Your task to perform on an android device: open app "WhatsApp Messenger" Image 0: 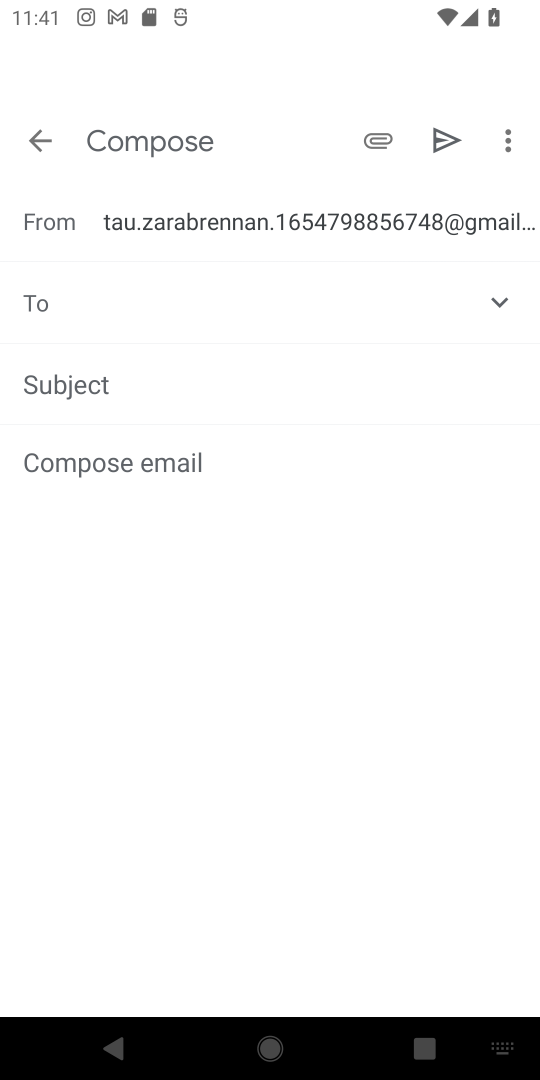
Step 0: press home button
Your task to perform on an android device: open app "WhatsApp Messenger" Image 1: 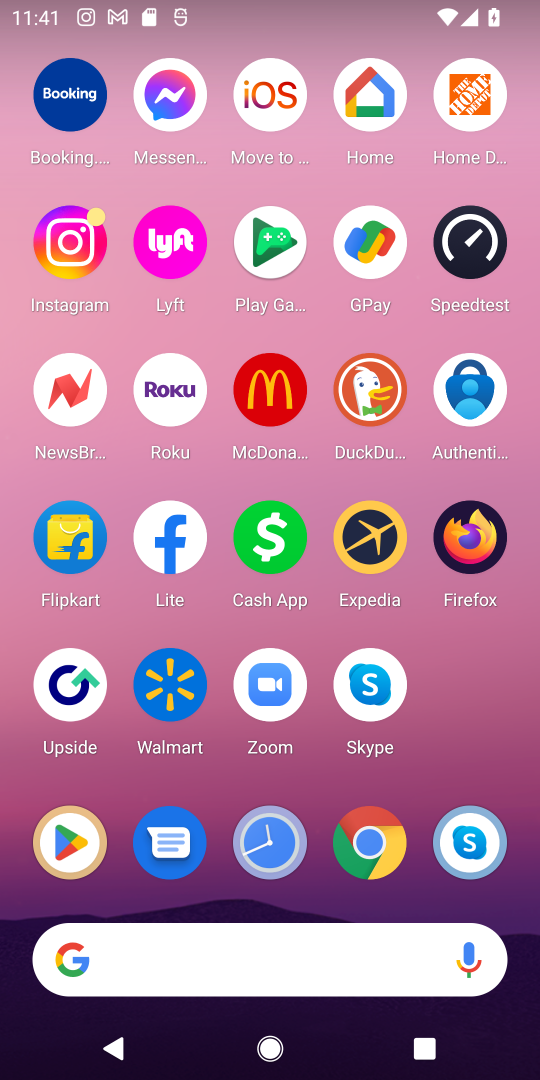
Step 1: click (68, 840)
Your task to perform on an android device: open app "WhatsApp Messenger" Image 2: 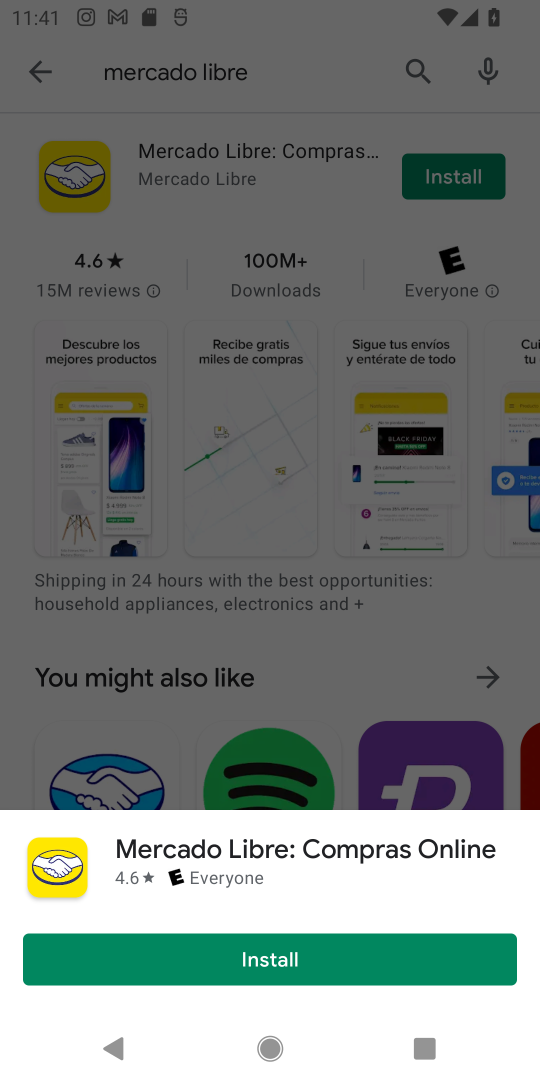
Step 2: click (288, 689)
Your task to perform on an android device: open app "WhatsApp Messenger" Image 3: 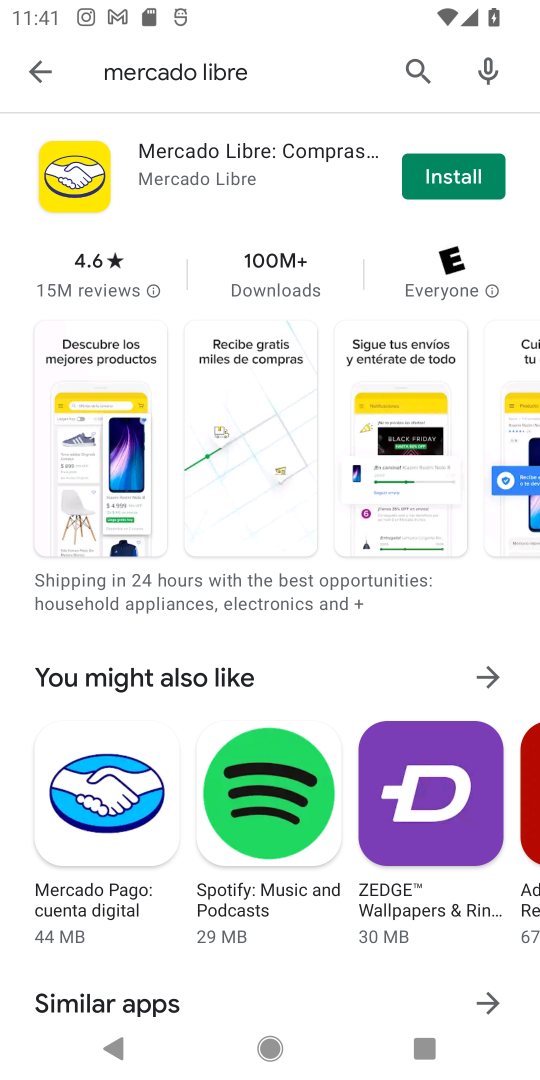
Step 3: click (403, 70)
Your task to perform on an android device: open app "WhatsApp Messenger" Image 4: 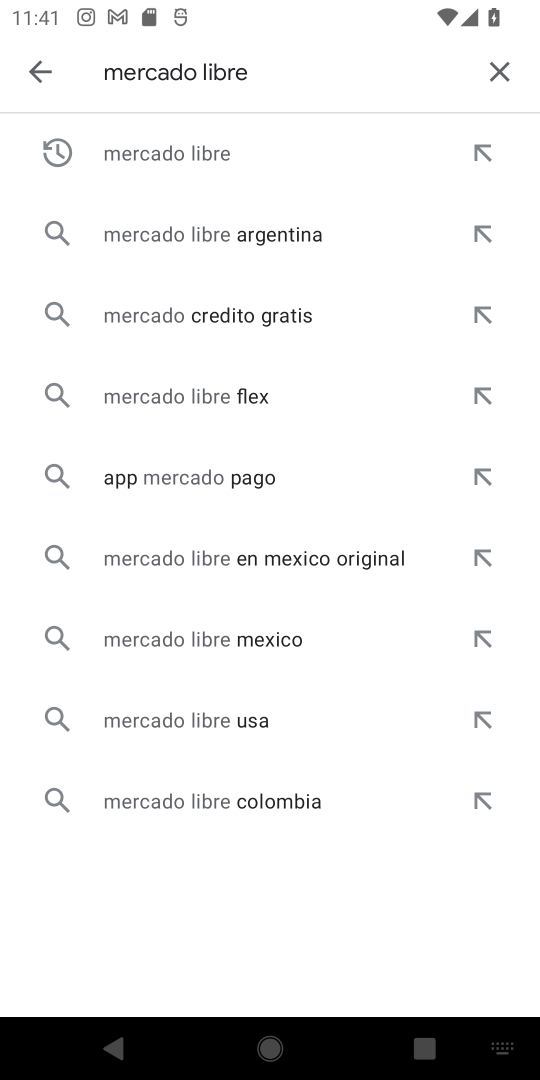
Step 4: click (501, 70)
Your task to perform on an android device: open app "WhatsApp Messenger" Image 5: 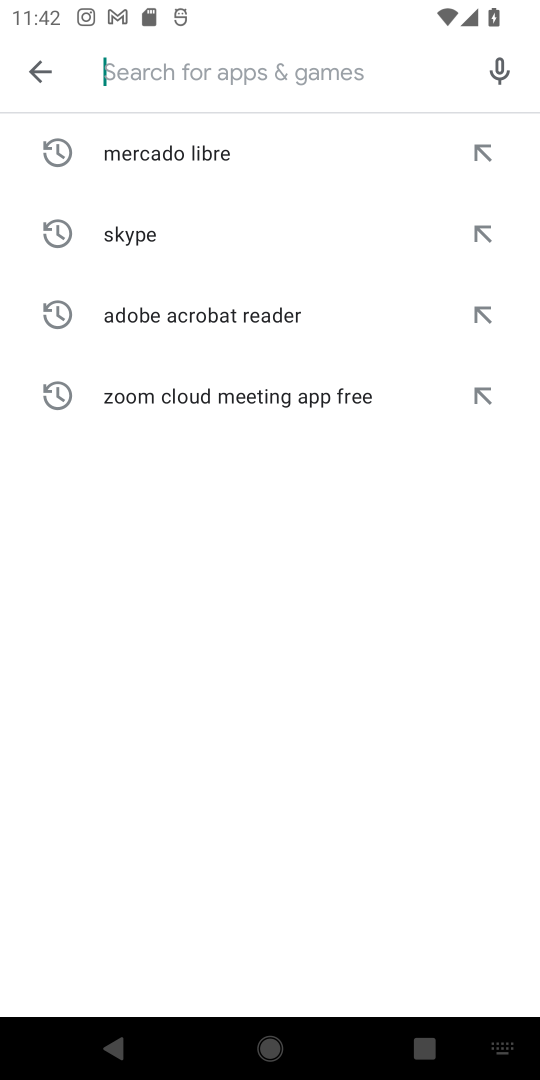
Step 5: click (265, 73)
Your task to perform on an android device: open app "WhatsApp Messenger" Image 6: 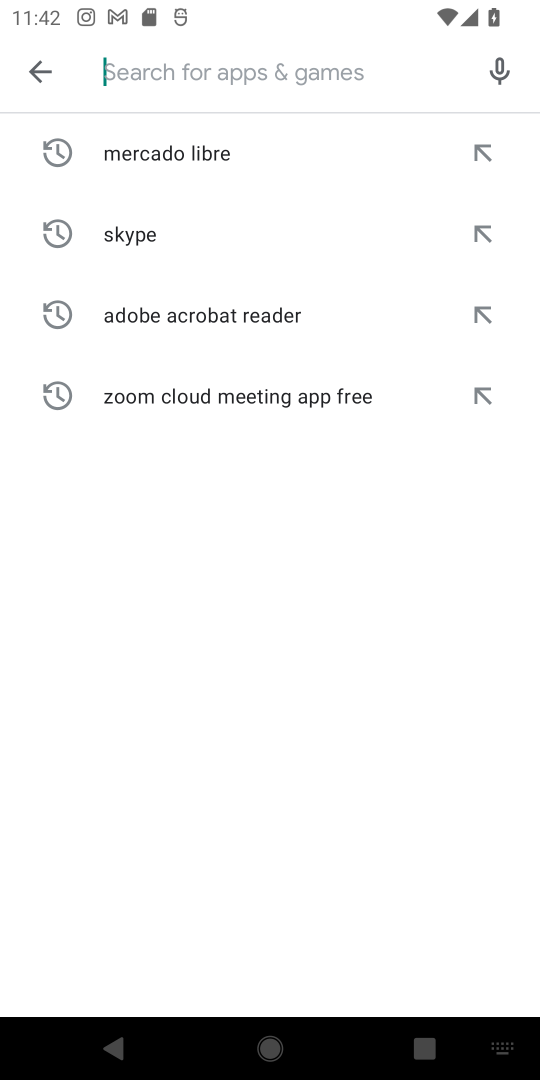
Step 6: type "WhatsApp Messenger"
Your task to perform on an android device: open app "WhatsApp Messenger" Image 7: 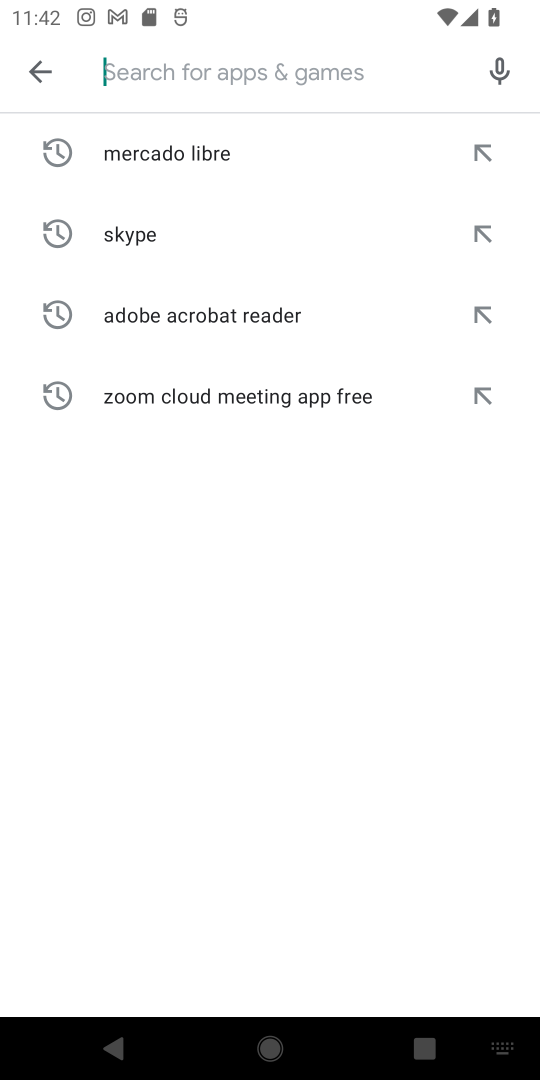
Step 7: click (264, 670)
Your task to perform on an android device: open app "WhatsApp Messenger" Image 8: 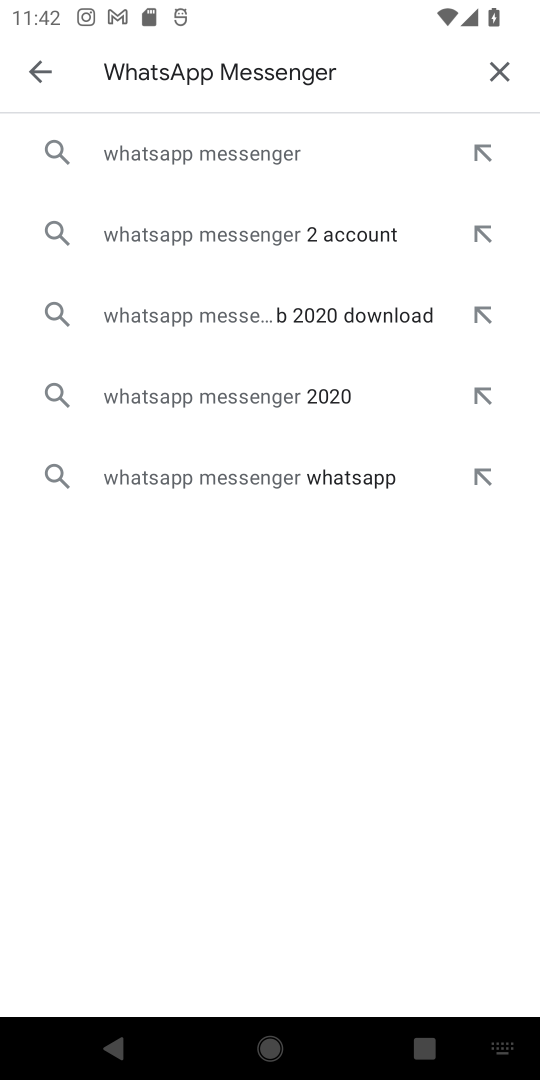
Step 8: click (172, 139)
Your task to perform on an android device: open app "WhatsApp Messenger" Image 9: 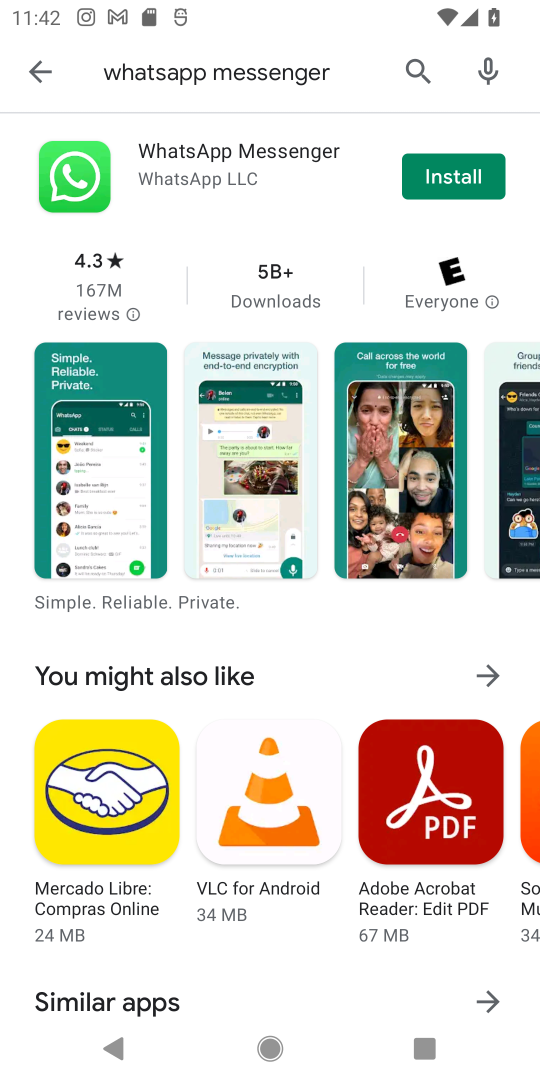
Step 9: task complete